Your task to perform on an android device: open app "Facebook" Image 0: 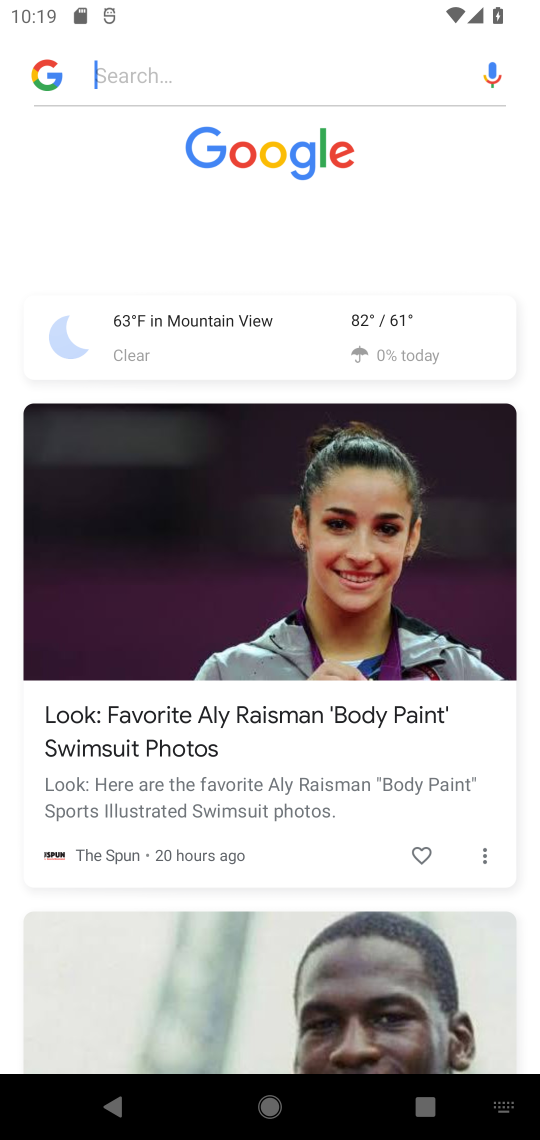
Step 0: press home button
Your task to perform on an android device: open app "Facebook" Image 1: 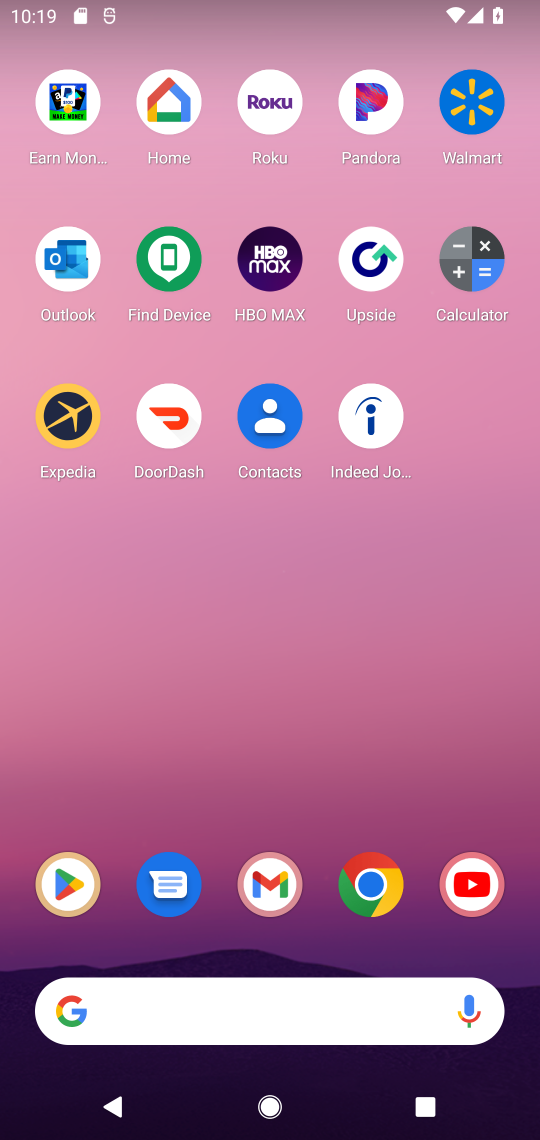
Step 1: click (65, 870)
Your task to perform on an android device: open app "Facebook" Image 2: 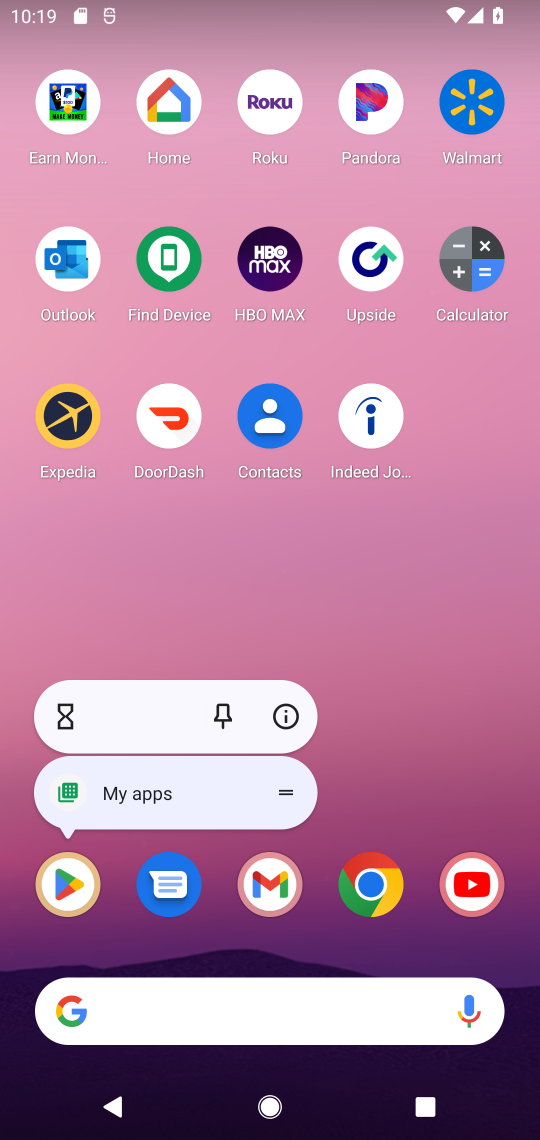
Step 2: click (77, 913)
Your task to perform on an android device: open app "Facebook" Image 3: 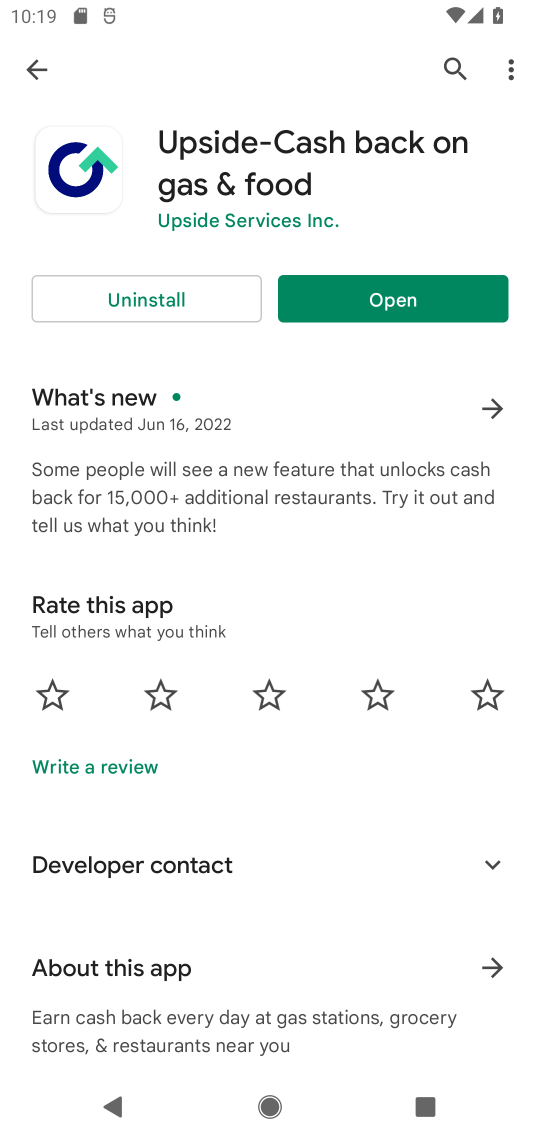
Step 3: click (15, 70)
Your task to perform on an android device: open app "Facebook" Image 4: 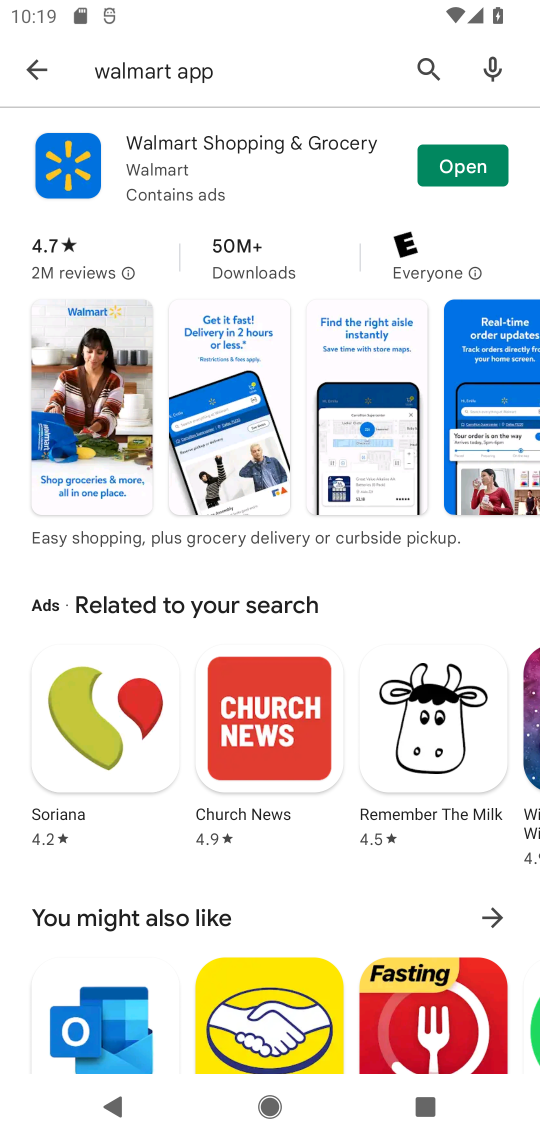
Step 4: click (165, 59)
Your task to perform on an android device: open app "Facebook" Image 5: 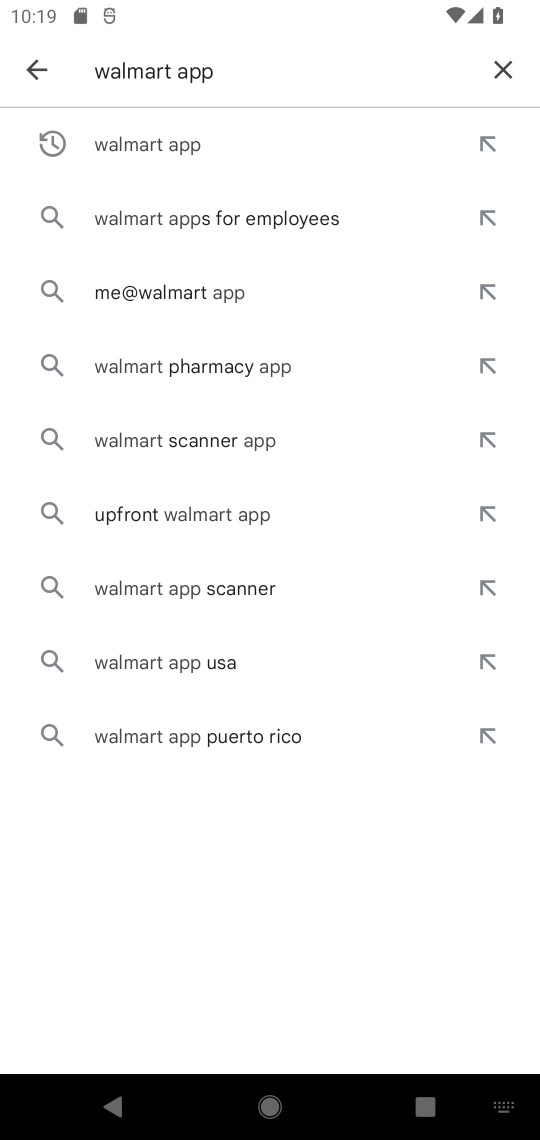
Step 5: click (498, 64)
Your task to perform on an android device: open app "Facebook" Image 6: 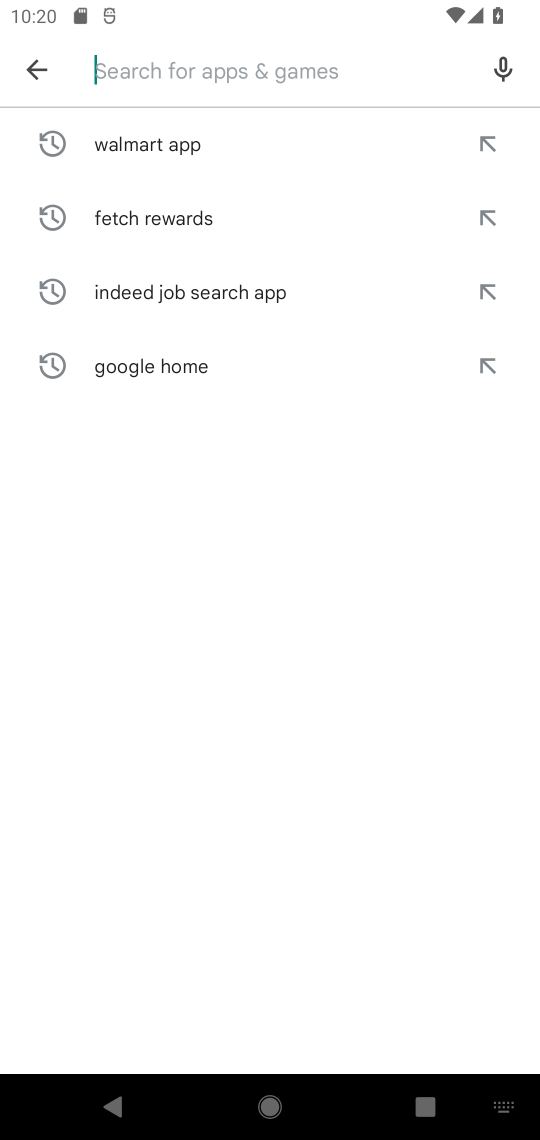
Step 6: type "facebook"
Your task to perform on an android device: open app "Facebook" Image 7: 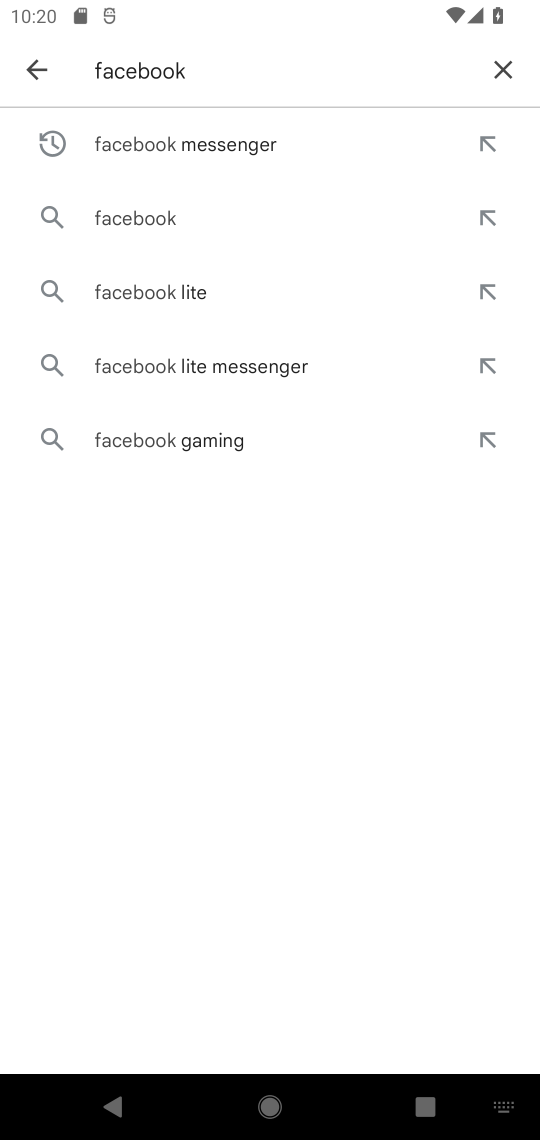
Step 7: click (151, 226)
Your task to perform on an android device: open app "Facebook" Image 8: 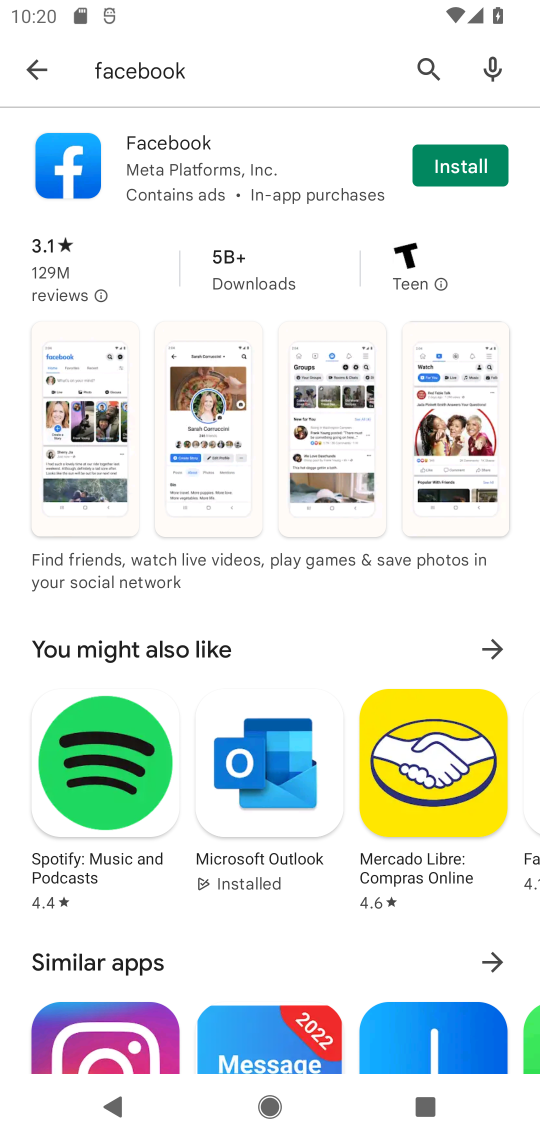
Step 8: task complete